Your task to perform on an android device: move an email to a new category in the gmail app Image 0: 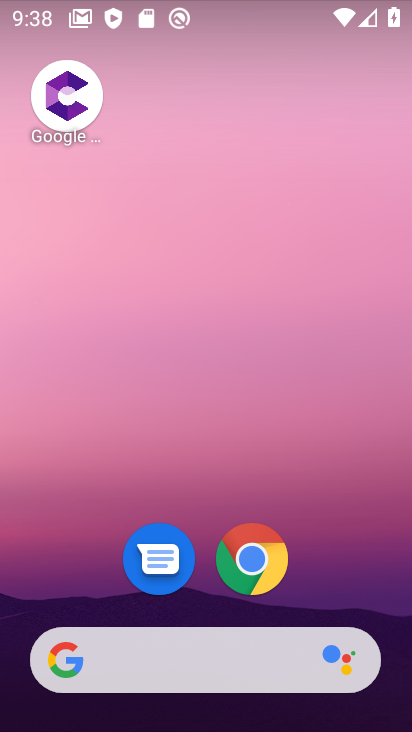
Step 0: drag from (307, 589) to (305, 52)
Your task to perform on an android device: move an email to a new category in the gmail app Image 1: 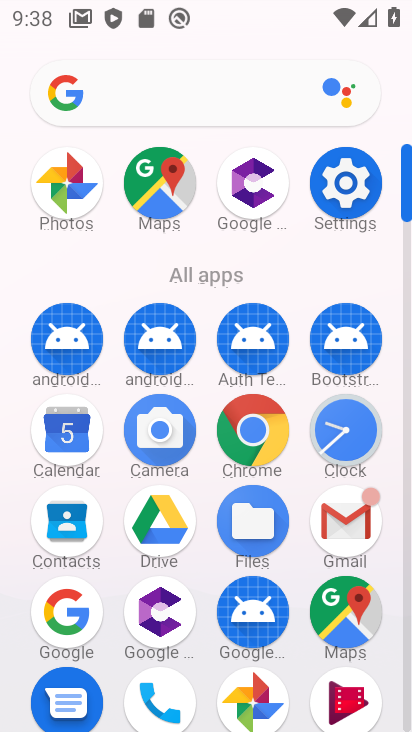
Step 1: click (343, 516)
Your task to perform on an android device: move an email to a new category in the gmail app Image 2: 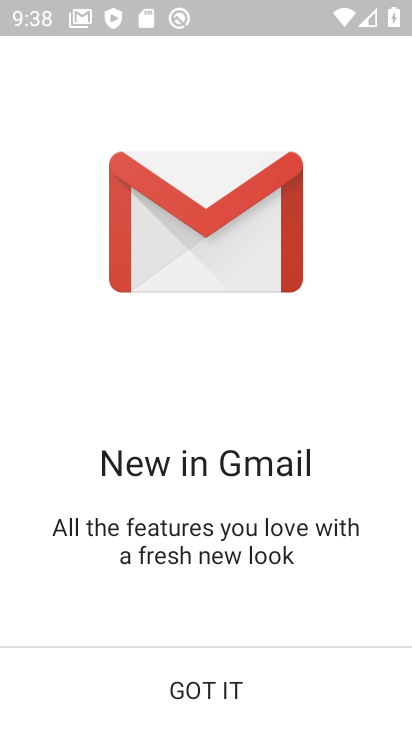
Step 2: click (217, 699)
Your task to perform on an android device: move an email to a new category in the gmail app Image 3: 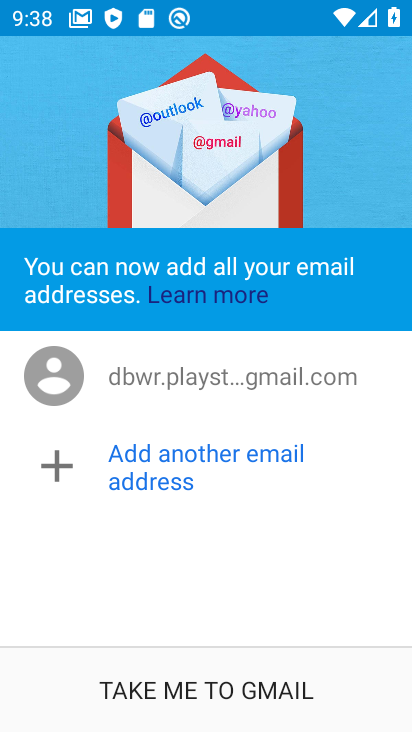
Step 3: click (213, 698)
Your task to perform on an android device: move an email to a new category in the gmail app Image 4: 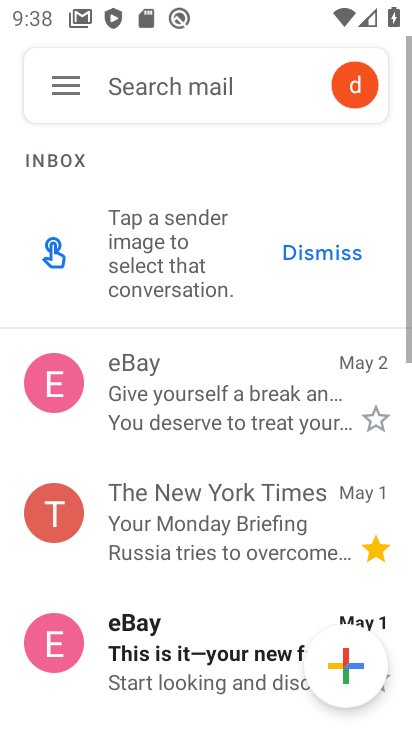
Step 4: click (51, 88)
Your task to perform on an android device: move an email to a new category in the gmail app Image 5: 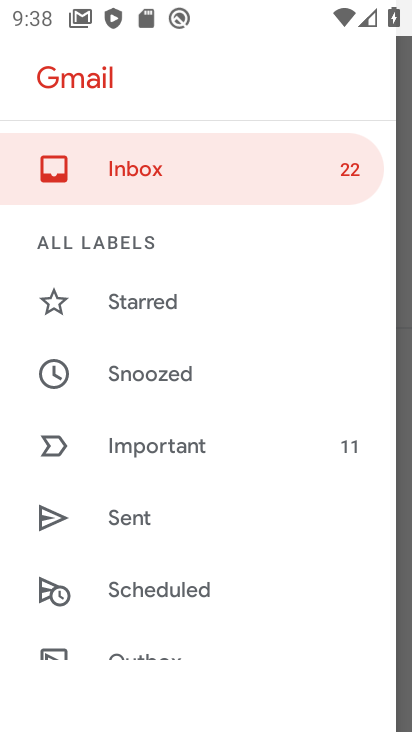
Step 5: drag from (180, 583) to (204, 309)
Your task to perform on an android device: move an email to a new category in the gmail app Image 6: 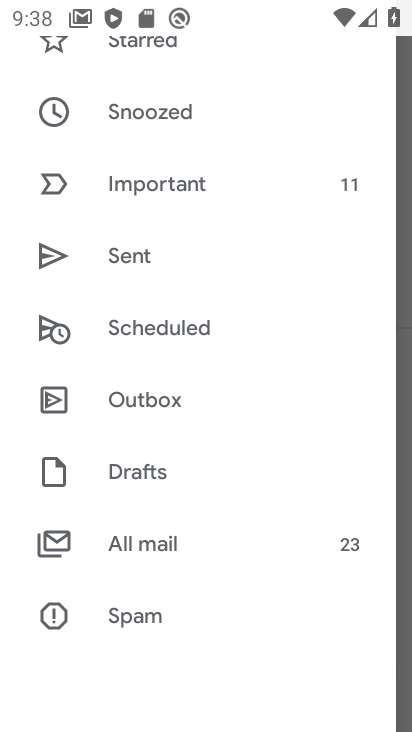
Step 6: click (154, 547)
Your task to perform on an android device: move an email to a new category in the gmail app Image 7: 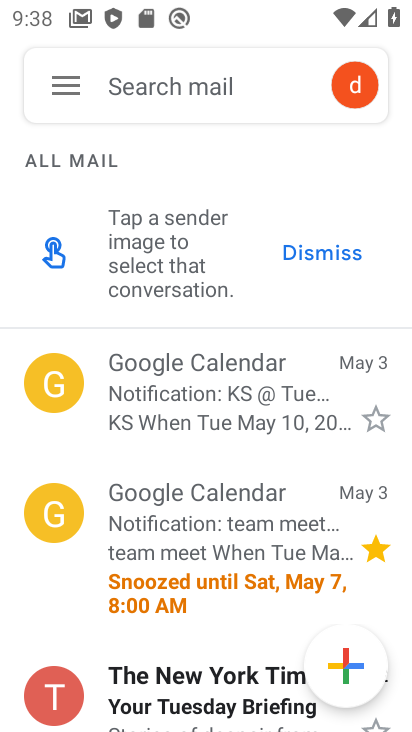
Step 7: click (78, 410)
Your task to perform on an android device: move an email to a new category in the gmail app Image 8: 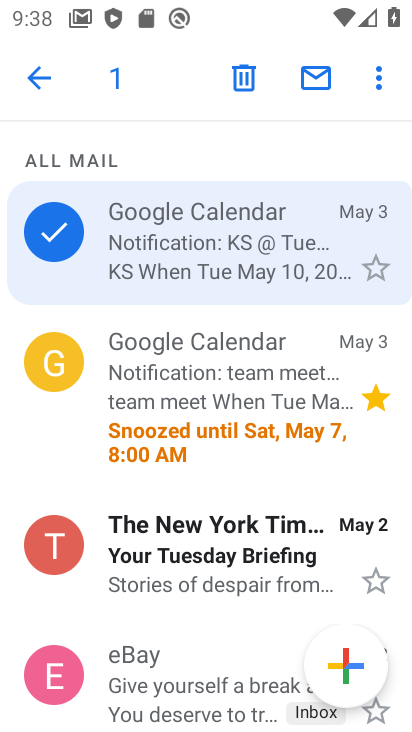
Step 8: click (382, 95)
Your task to perform on an android device: move an email to a new category in the gmail app Image 9: 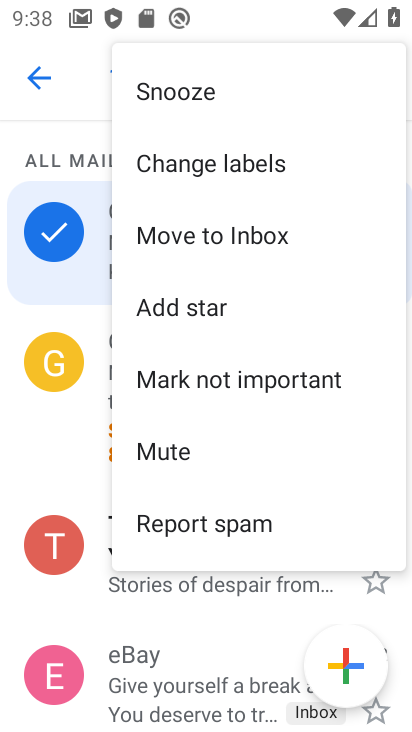
Step 9: click (276, 243)
Your task to perform on an android device: move an email to a new category in the gmail app Image 10: 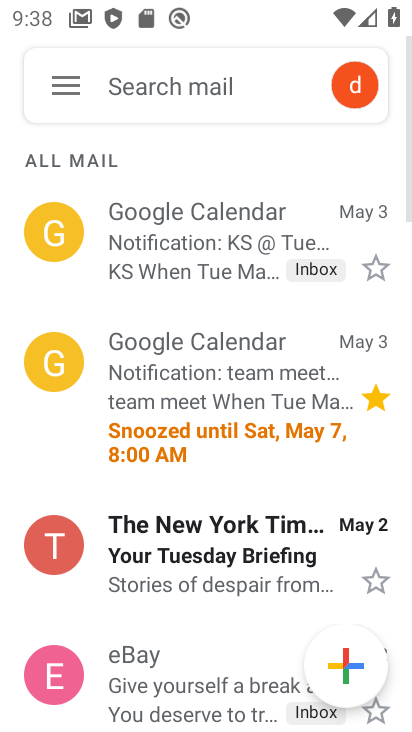
Step 10: task complete